Your task to perform on an android device: Show me popular games on the Play Store Image 0: 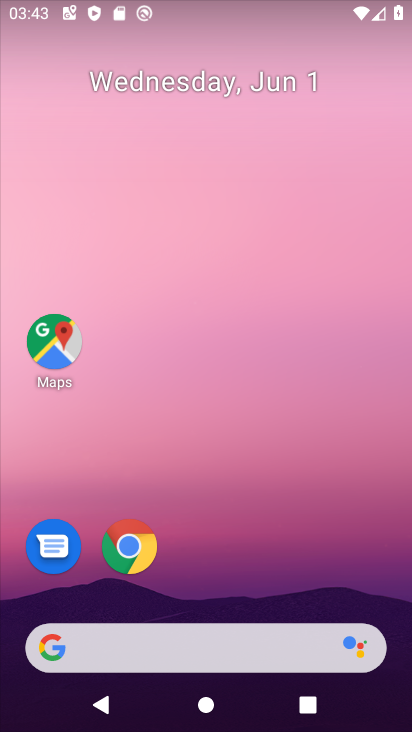
Step 0: drag from (17, 219) to (179, 236)
Your task to perform on an android device: Show me popular games on the Play Store Image 1: 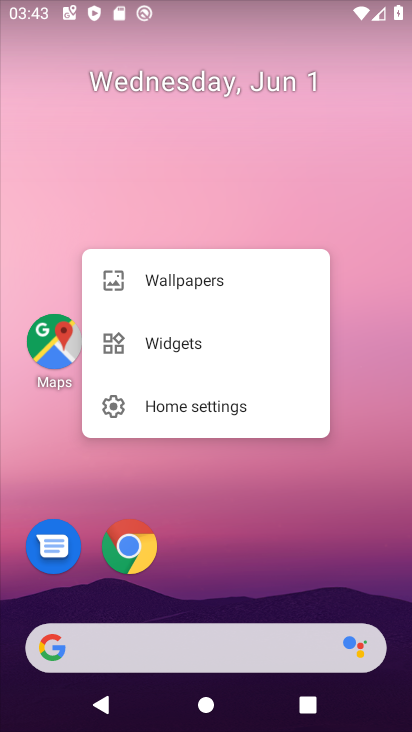
Step 1: drag from (1, 231) to (227, 197)
Your task to perform on an android device: Show me popular games on the Play Store Image 2: 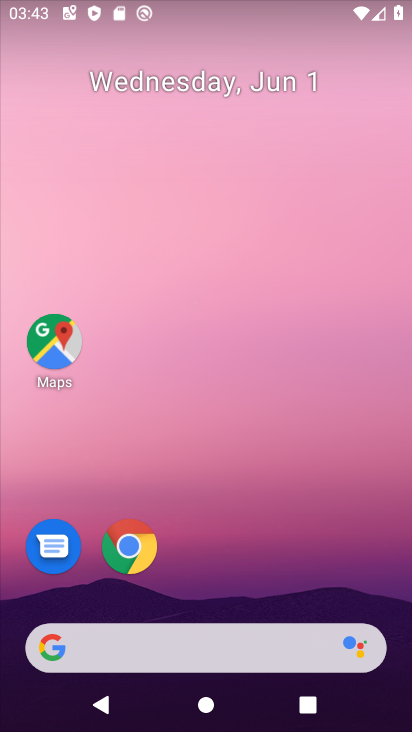
Step 2: drag from (2, 188) to (373, 263)
Your task to perform on an android device: Show me popular games on the Play Store Image 3: 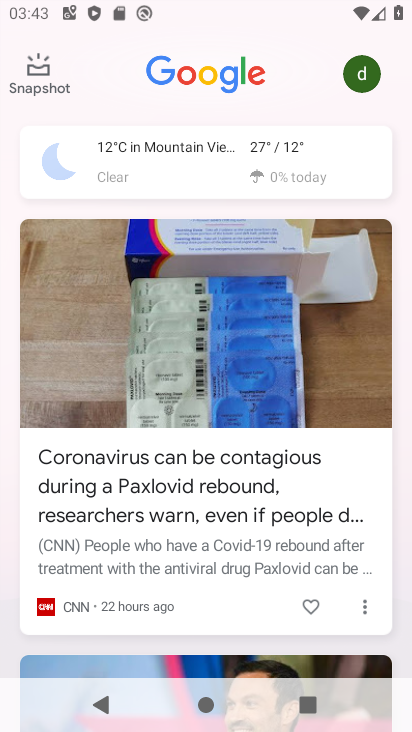
Step 3: press home button
Your task to perform on an android device: Show me popular games on the Play Store Image 4: 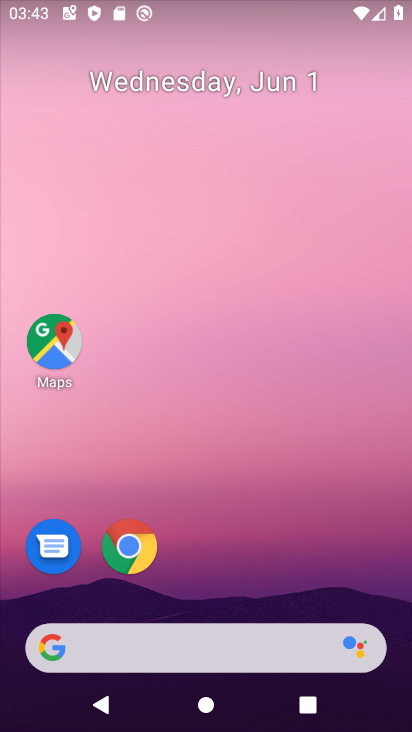
Step 4: drag from (240, 588) to (217, 22)
Your task to perform on an android device: Show me popular games on the Play Store Image 5: 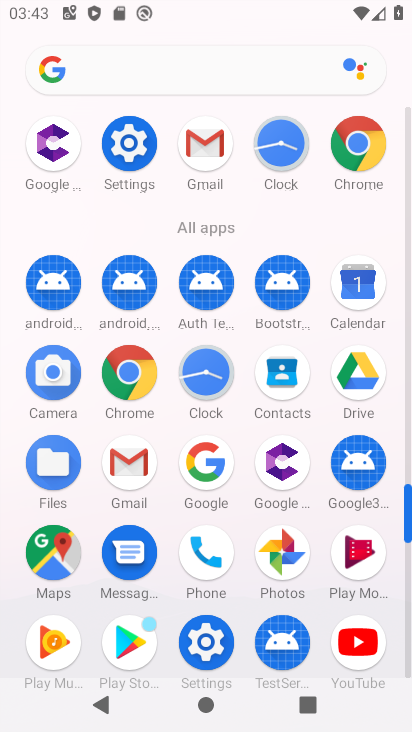
Step 5: click (124, 654)
Your task to perform on an android device: Show me popular games on the Play Store Image 6: 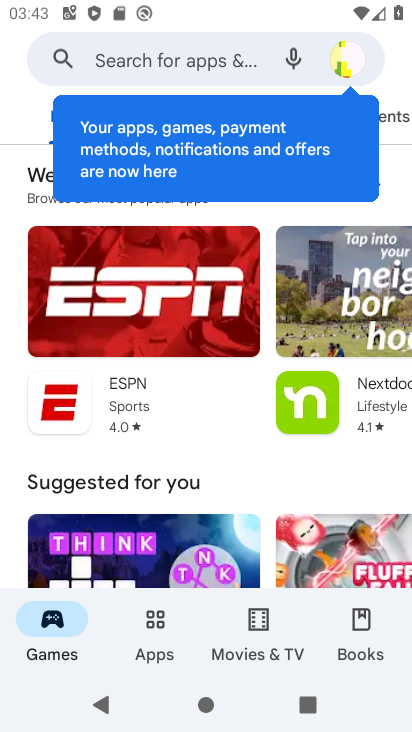
Step 6: click (128, 412)
Your task to perform on an android device: Show me popular games on the Play Store Image 7: 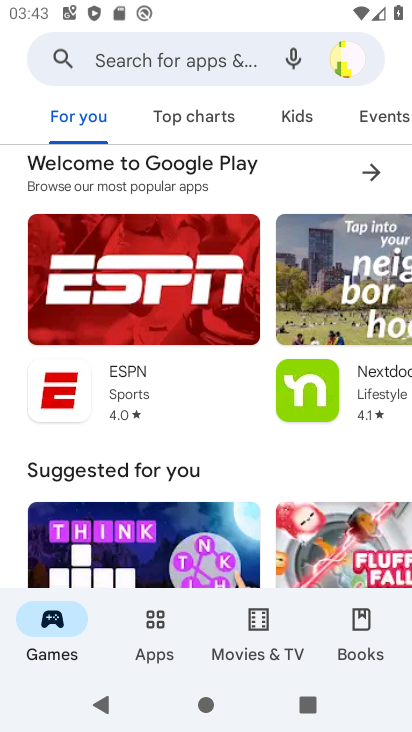
Step 7: click (180, 120)
Your task to perform on an android device: Show me popular games on the Play Store Image 8: 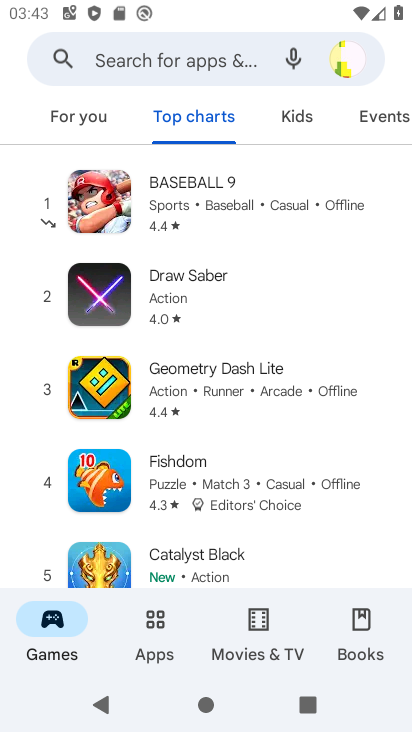
Step 8: task complete